Your task to perform on an android device: Open Chrome and go to the settings page Image 0: 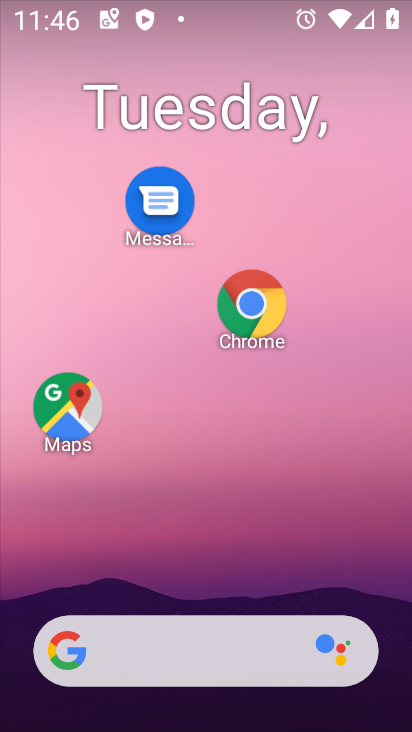
Step 0: drag from (310, 287) to (317, 233)
Your task to perform on an android device: Open Chrome and go to the settings page Image 1: 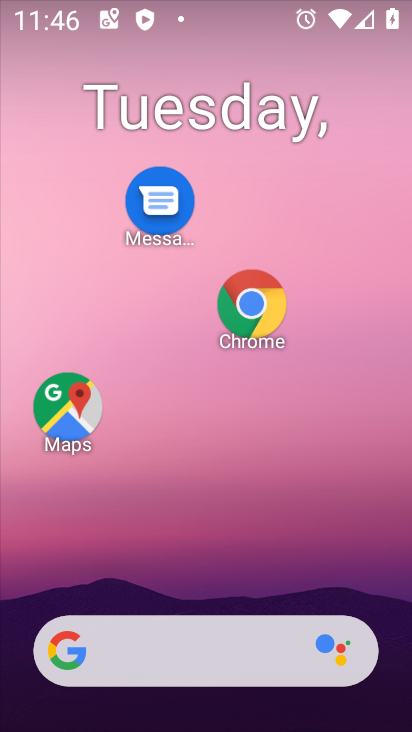
Step 1: click (334, 248)
Your task to perform on an android device: Open Chrome and go to the settings page Image 2: 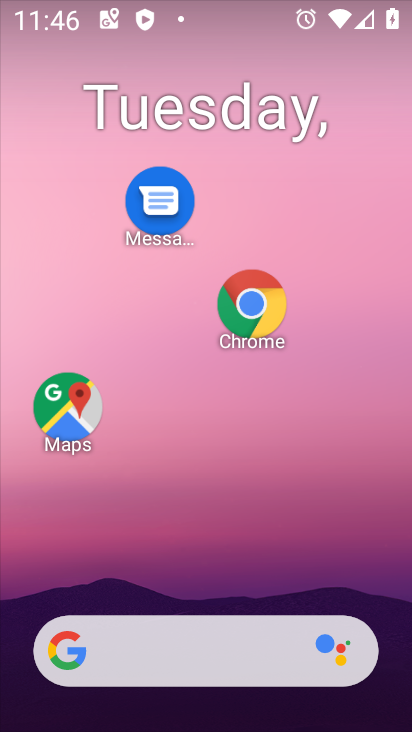
Step 2: drag from (232, 566) to (304, 152)
Your task to perform on an android device: Open Chrome and go to the settings page Image 3: 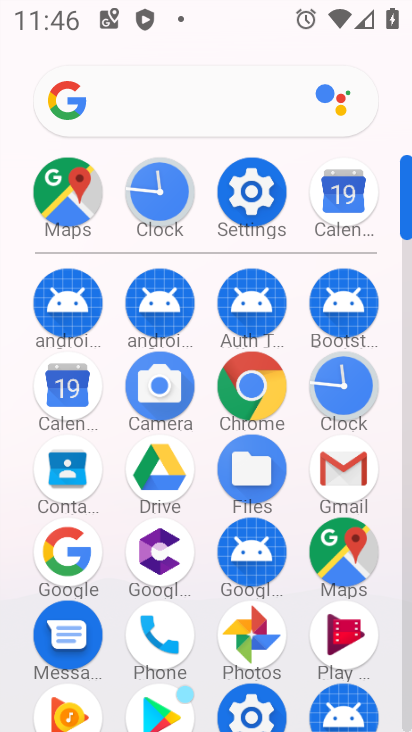
Step 3: click (250, 386)
Your task to perform on an android device: Open Chrome and go to the settings page Image 4: 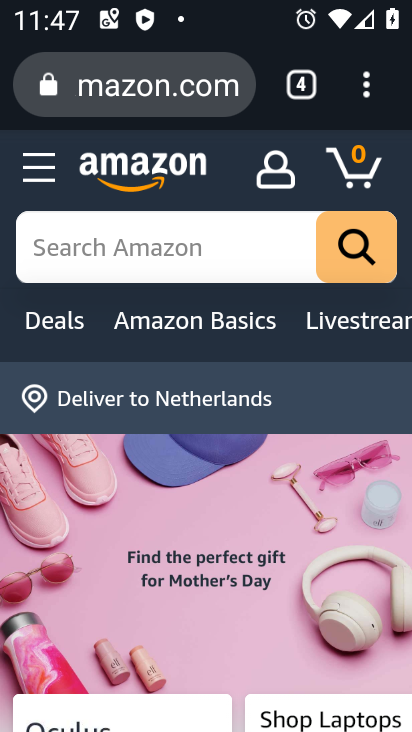
Step 4: click (365, 78)
Your task to perform on an android device: Open Chrome and go to the settings page Image 5: 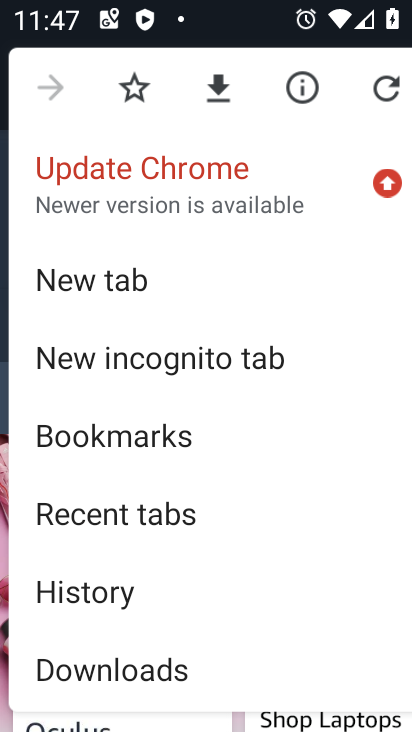
Step 5: drag from (216, 652) to (295, 198)
Your task to perform on an android device: Open Chrome and go to the settings page Image 6: 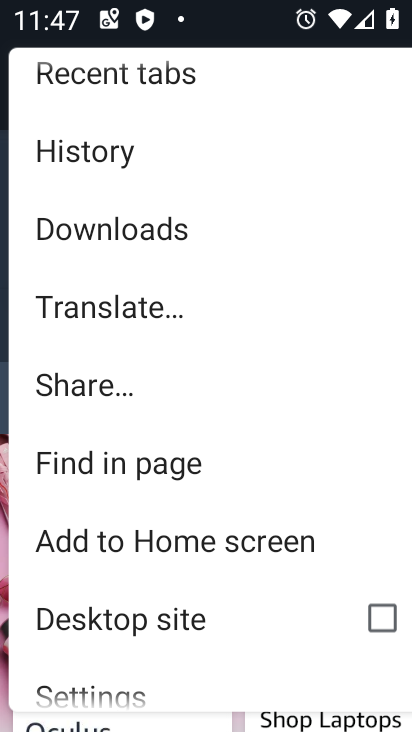
Step 6: drag from (190, 576) to (212, 257)
Your task to perform on an android device: Open Chrome and go to the settings page Image 7: 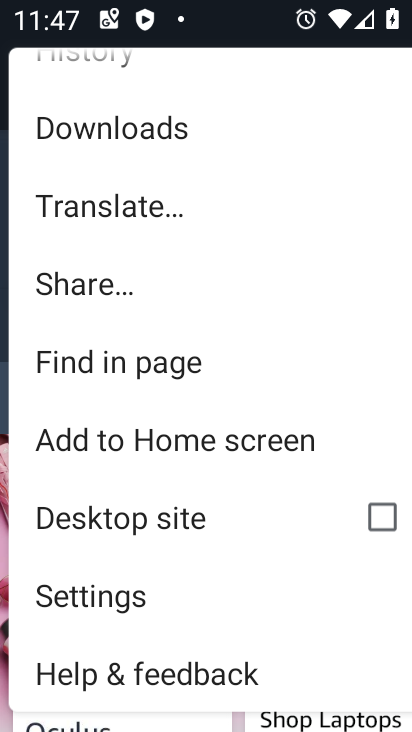
Step 7: click (79, 587)
Your task to perform on an android device: Open Chrome and go to the settings page Image 8: 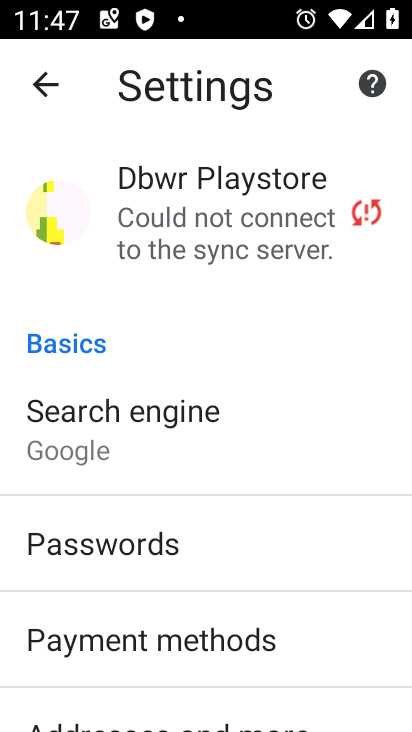
Step 8: task complete